Your task to perform on an android device: Search for Mexican restaurants on Maps Image 0: 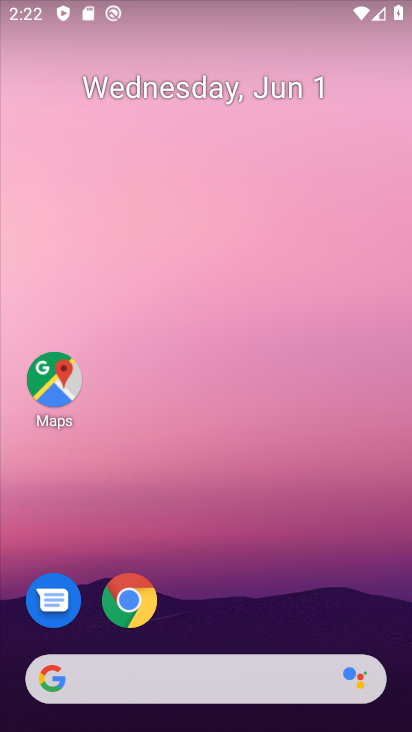
Step 0: drag from (284, 561) to (203, 36)
Your task to perform on an android device: Search for Mexican restaurants on Maps Image 1: 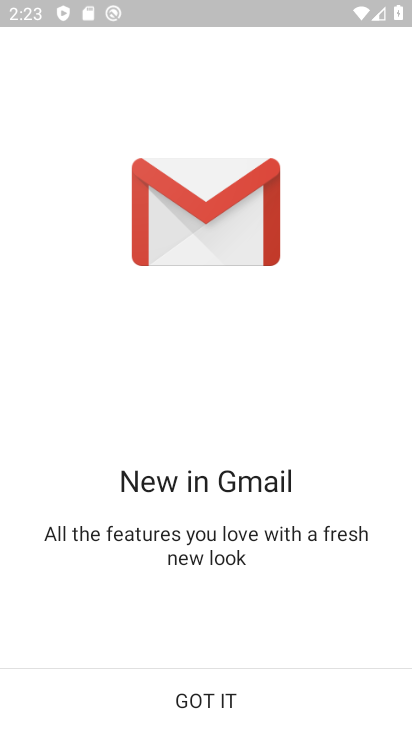
Step 1: press back button
Your task to perform on an android device: Search for Mexican restaurants on Maps Image 2: 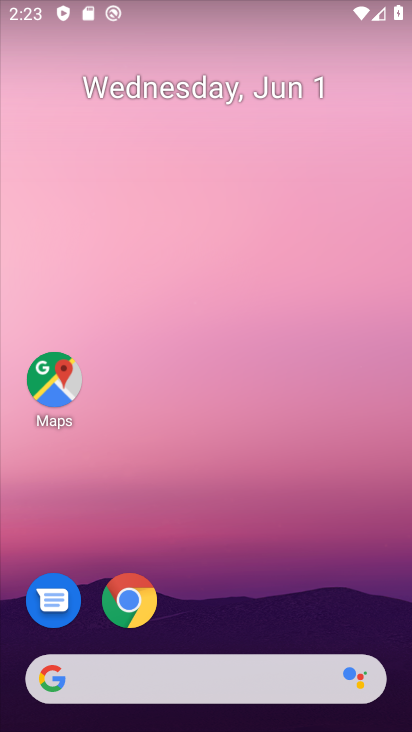
Step 2: drag from (319, 558) to (241, 43)
Your task to perform on an android device: Search for Mexican restaurants on Maps Image 3: 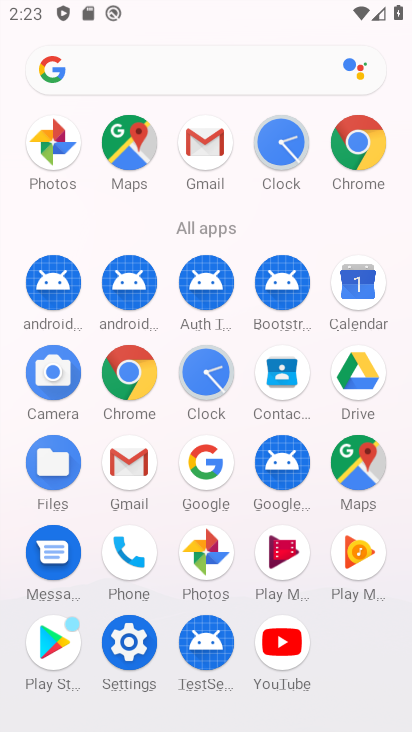
Step 3: click (125, 138)
Your task to perform on an android device: Search for Mexican restaurants on Maps Image 4: 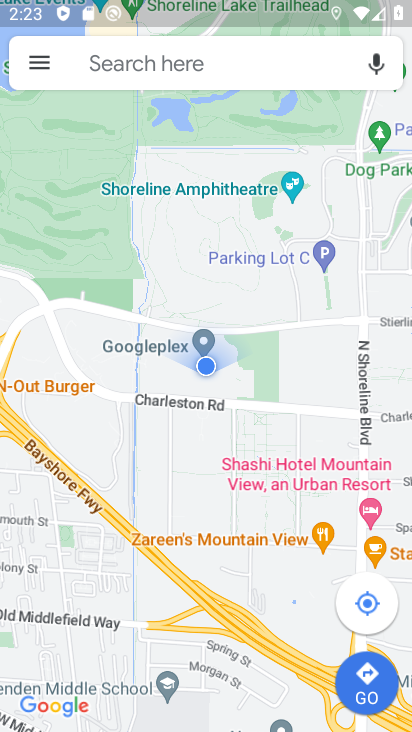
Step 4: click (198, 55)
Your task to perform on an android device: Search for Mexican restaurants on Maps Image 5: 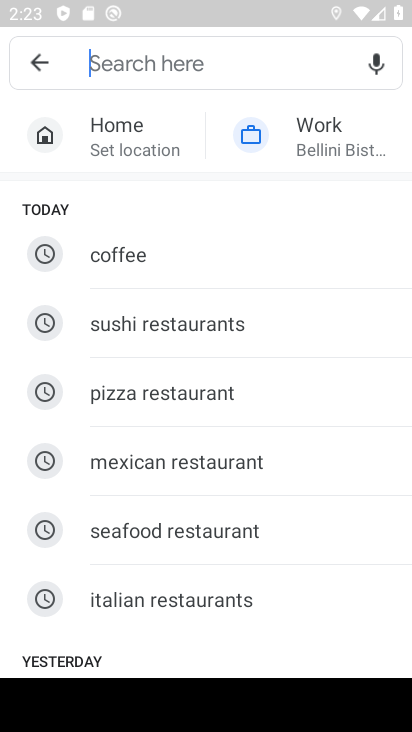
Step 5: click (229, 451)
Your task to perform on an android device: Search for Mexican restaurants on Maps Image 6: 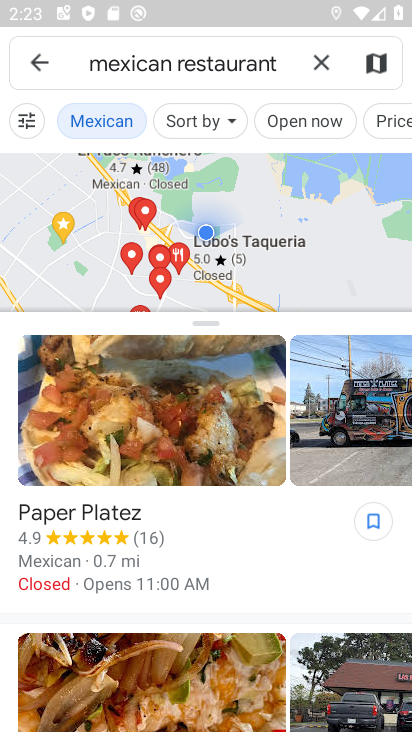
Step 6: task complete